Your task to perform on an android device: Toggle the flashlight Image 0: 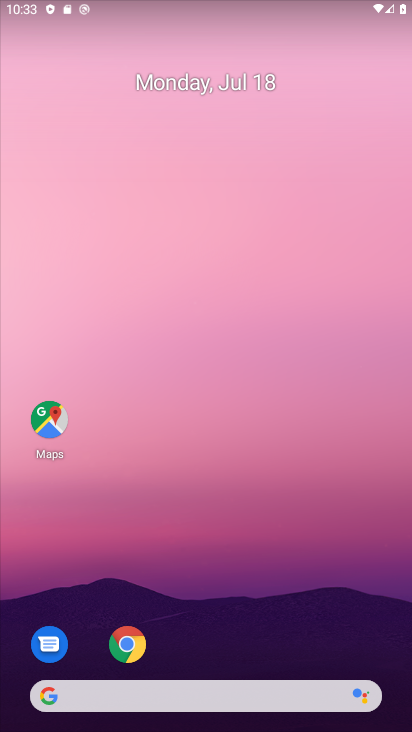
Step 0: drag from (211, 666) to (222, 146)
Your task to perform on an android device: Toggle the flashlight Image 1: 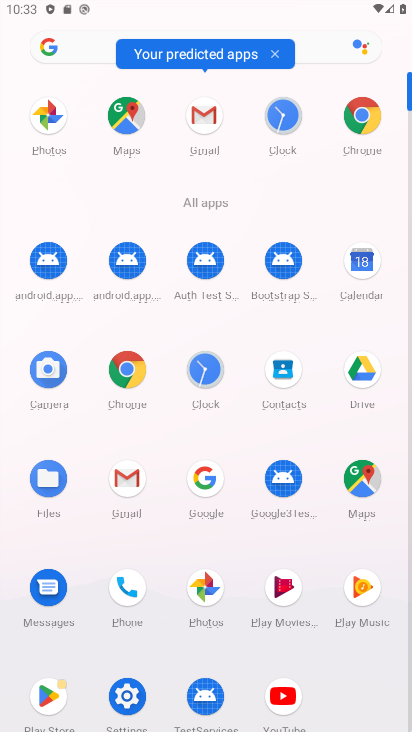
Step 1: click (129, 701)
Your task to perform on an android device: Toggle the flashlight Image 2: 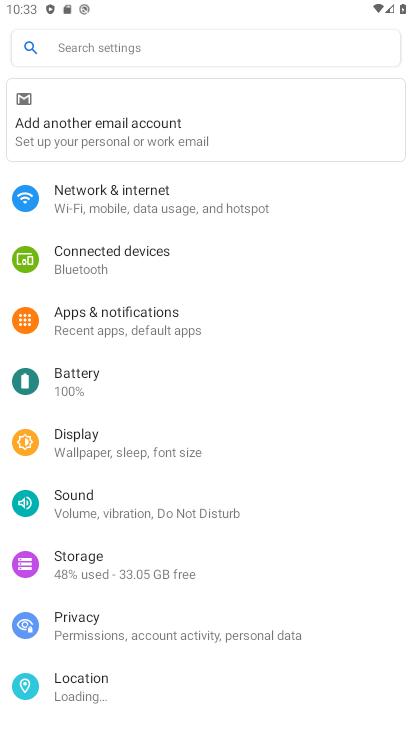
Step 2: click (171, 50)
Your task to perform on an android device: Toggle the flashlight Image 3: 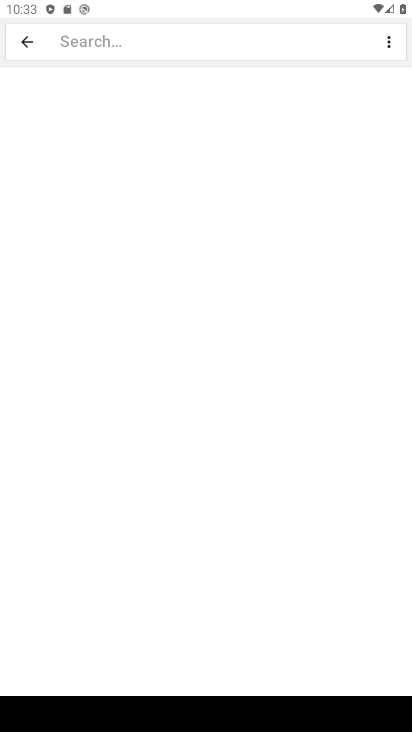
Step 3: type "flashlight"
Your task to perform on an android device: Toggle the flashlight Image 4: 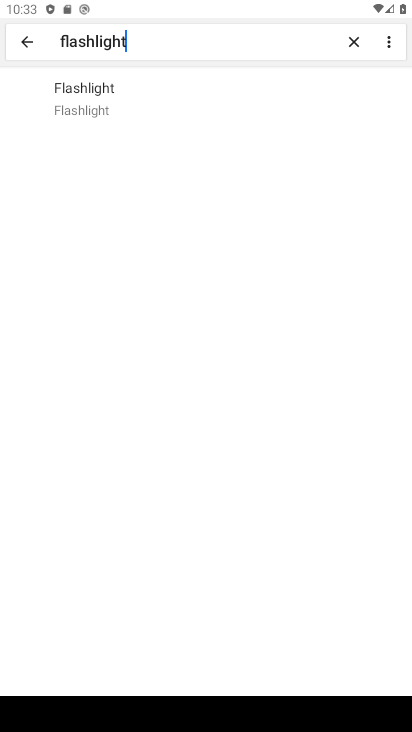
Step 4: task complete